Your task to perform on an android device: Open battery settings Image 0: 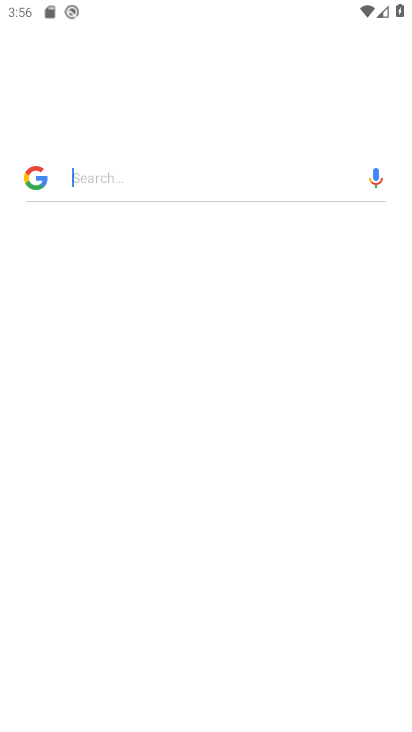
Step 0: click (270, 204)
Your task to perform on an android device: Open battery settings Image 1: 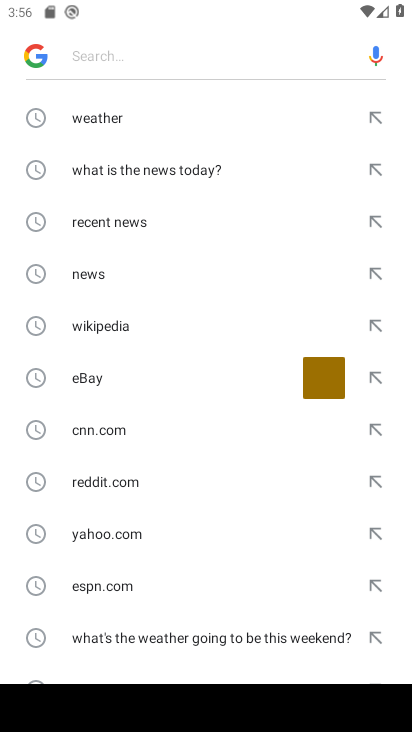
Step 1: press home button
Your task to perform on an android device: Open battery settings Image 2: 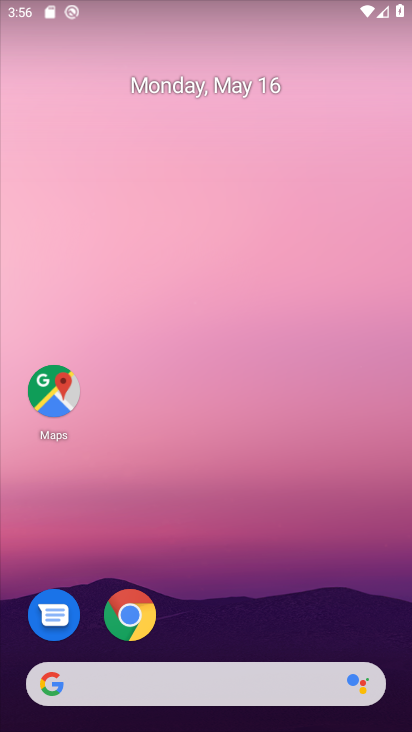
Step 2: click (256, 117)
Your task to perform on an android device: Open battery settings Image 3: 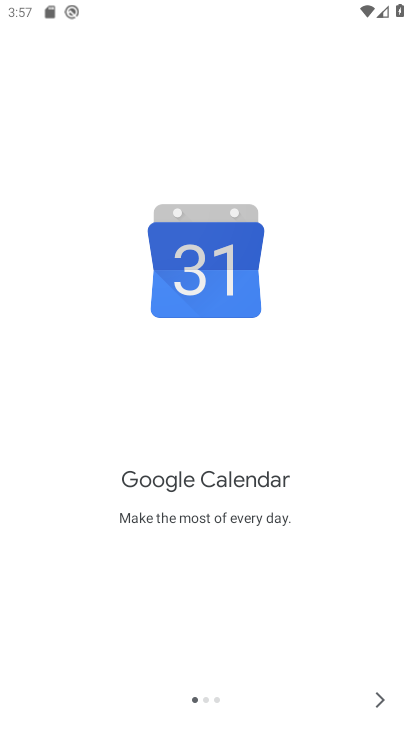
Step 3: press home button
Your task to perform on an android device: Open battery settings Image 4: 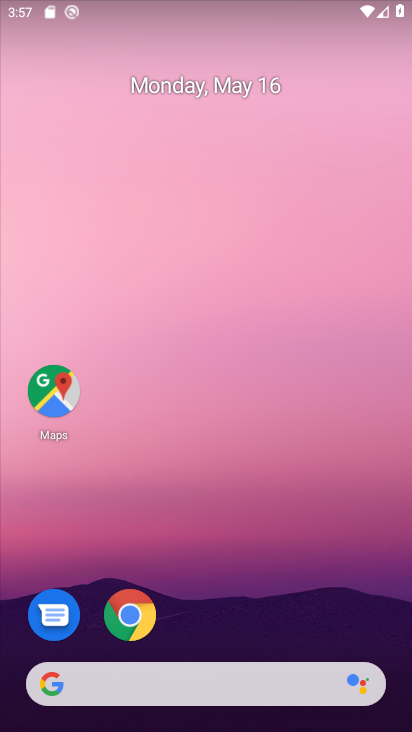
Step 4: click (274, 137)
Your task to perform on an android device: Open battery settings Image 5: 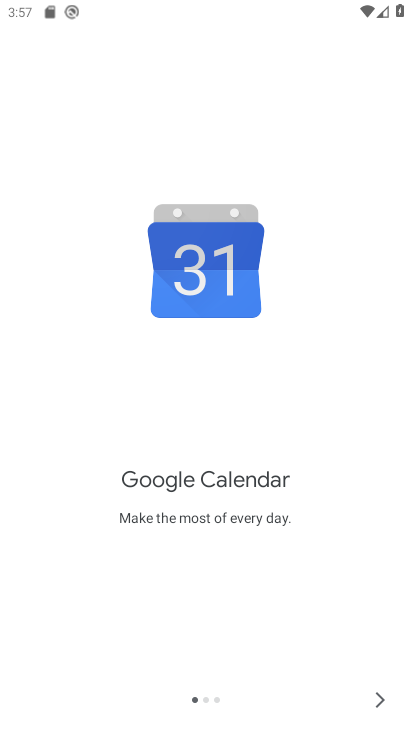
Step 5: press home button
Your task to perform on an android device: Open battery settings Image 6: 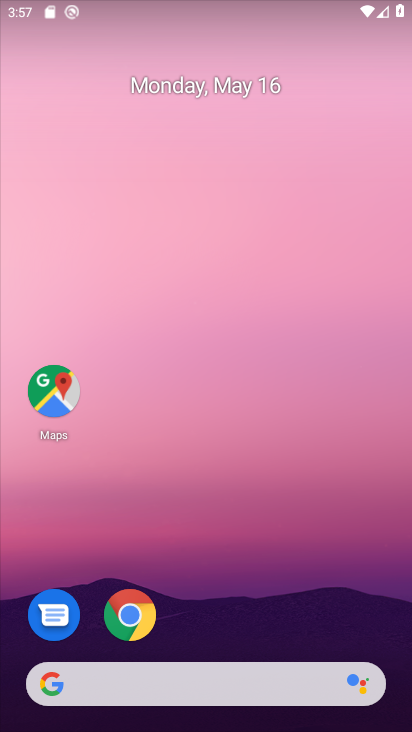
Step 6: drag from (212, 585) to (246, 71)
Your task to perform on an android device: Open battery settings Image 7: 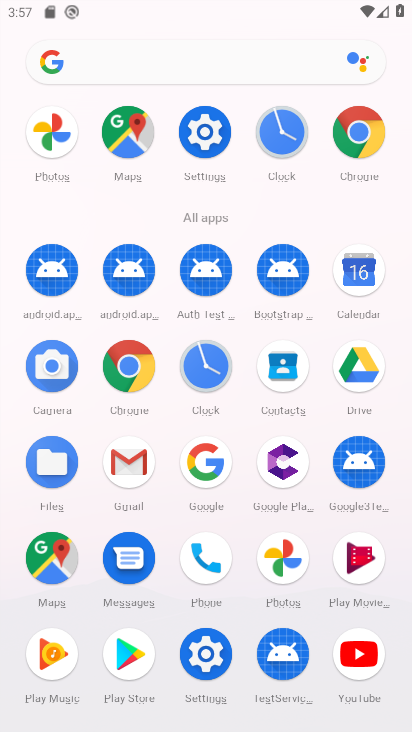
Step 7: click (198, 137)
Your task to perform on an android device: Open battery settings Image 8: 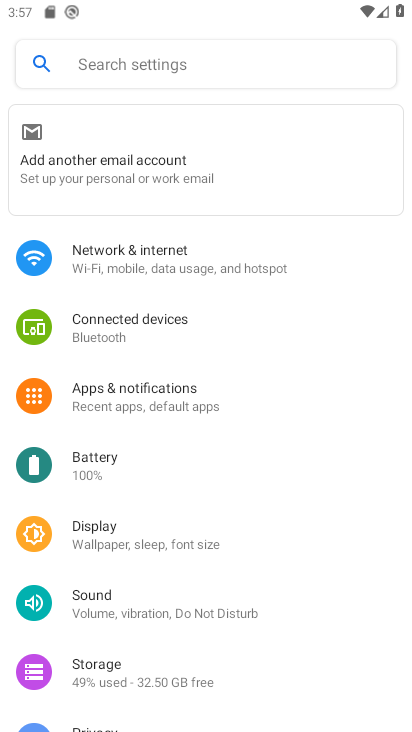
Step 8: click (122, 485)
Your task to perform on an android device: Open battery settings Image 9: 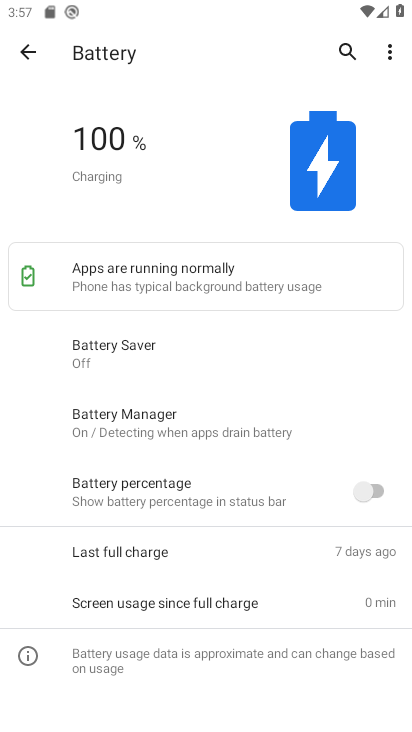
Step 9: task complete